Your task to perform on an android device: Open internet settings Image 0: 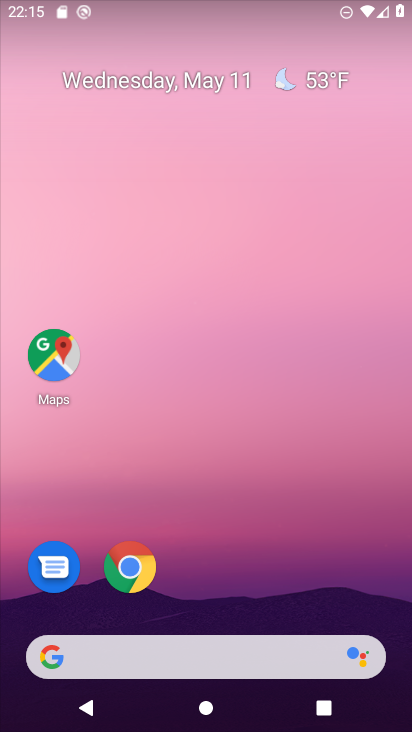
Step 0: drag from (249, 708) to (296, 65)
Your task to perform on an android device: Open internet settings Image 1: 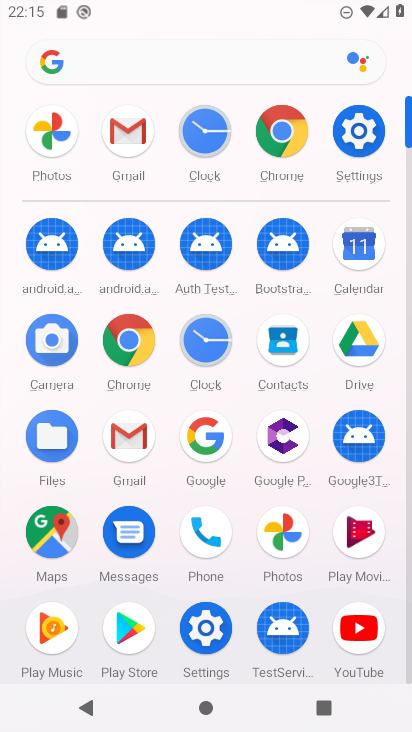
Step 1: click (358, 146)
Your task to perform on an android device: Open internet settings Image 2: 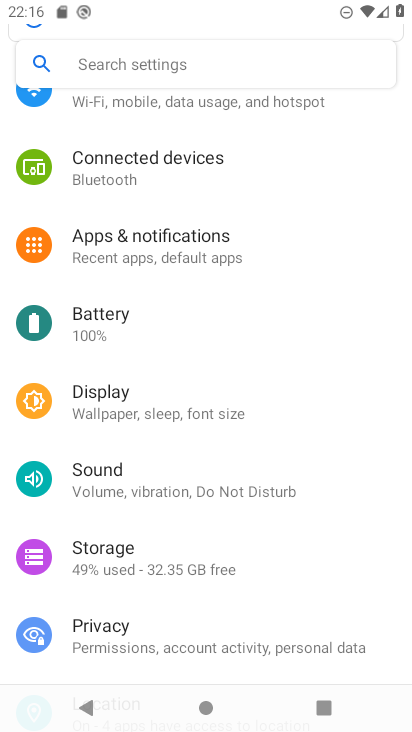
Step 2: drag from (268, 185) to (226, 604)
Your task to perform on an android device: Open internet settings Image 3: 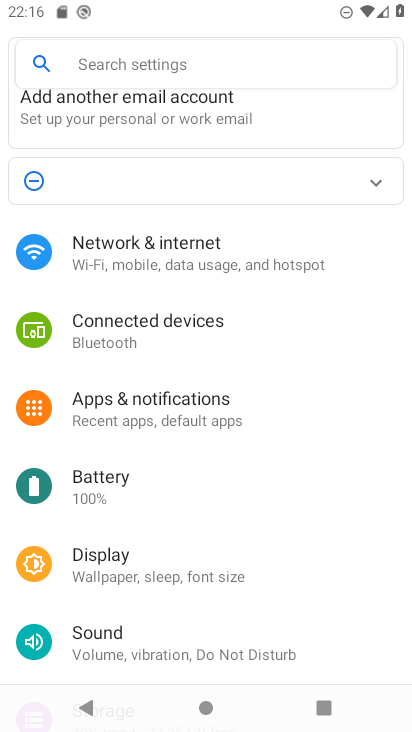
Step 3: click (251, 262)
Your task to perform on an android device: Open internet settings Image 4: 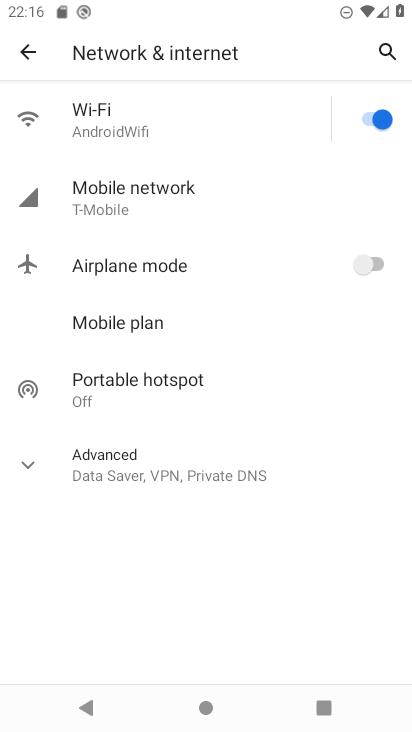
Step 4: task complete